Your task to perform on an android device: move a message to another label in the gmail app Image 0: 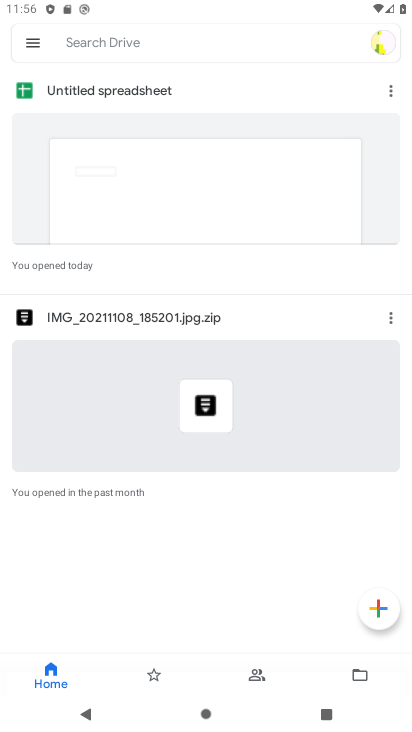
Step 0: press home button
Your task to perform on an android device: move a message to another label in the gmail app Image 1: 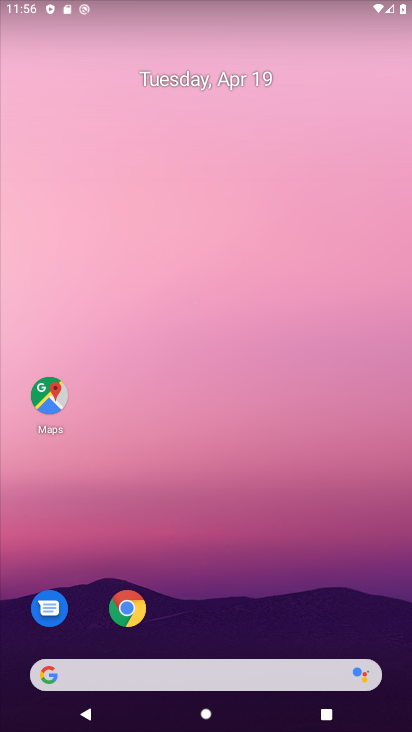
Step 1: drag from (267, 373) to (266, 92)
Your task to perform on an android device: move a message to another label in the gmail app Image 2: 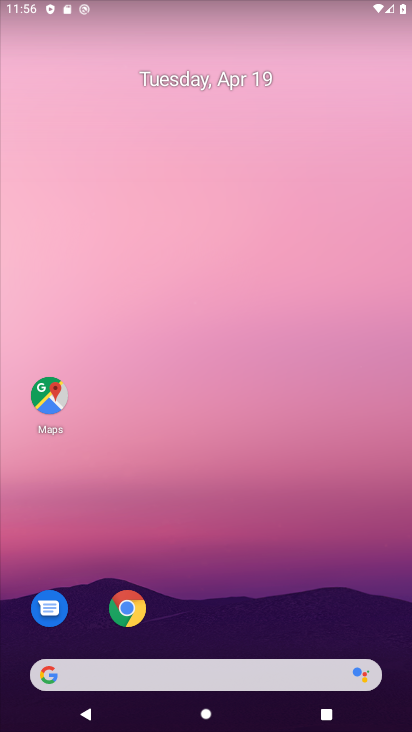
Step 2: drag from (219, 407) to (214, 40)
Your task to perform on an android device: move a message to another label in the gmail app Image 3: 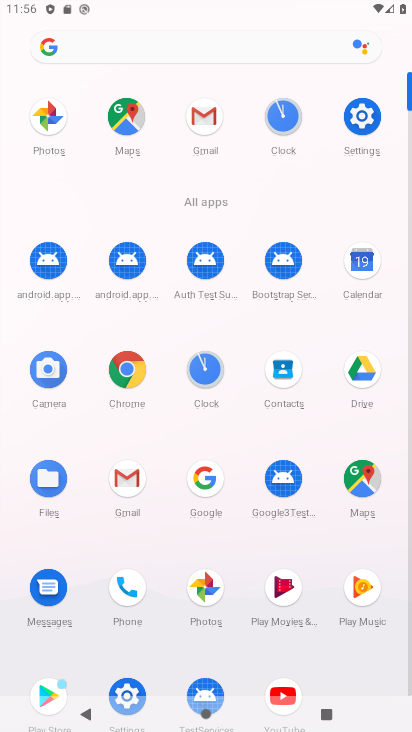
Step 3: click (205, 119)
Your task to perform on an android device: move a message to another label in the gmail app Image 4: 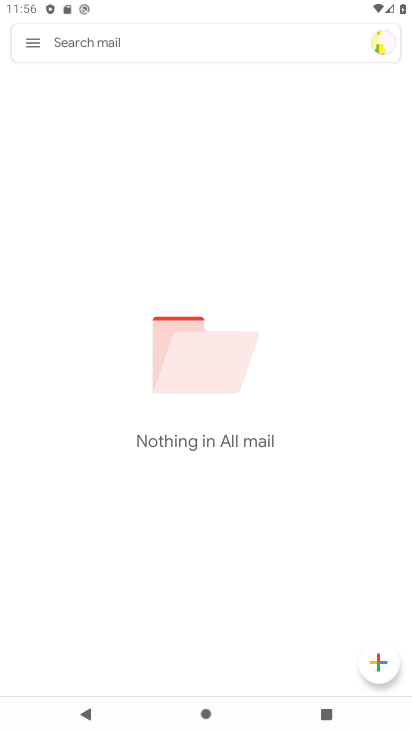
Step 4: click (31, 40)
Your task to perform on an android device: move a message to another label in the gmail app Image 5: 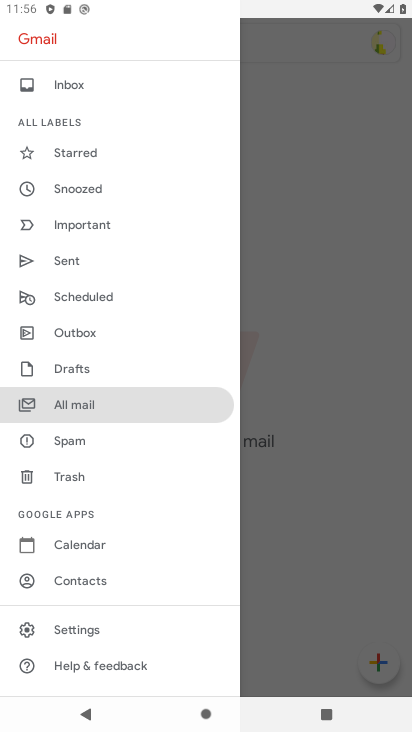
Step 5: click (80, 88)
Your task to perform on an android device: move a message to another label in the gmail app Image 6: 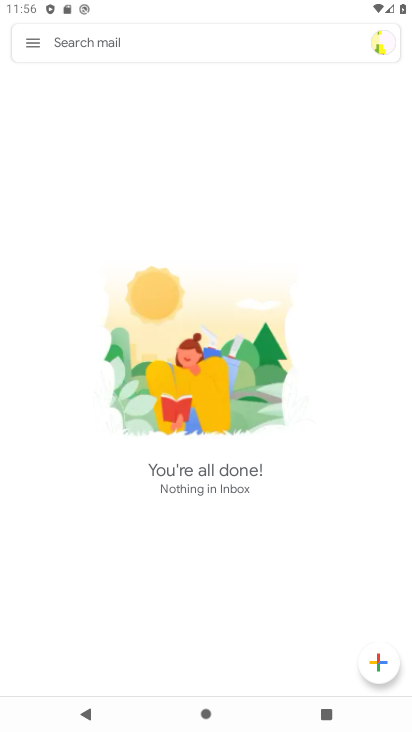
Step 6: task complete